Your task to perform on an android device: Open the Play Movies app and select the watchlist tab. Image 0: 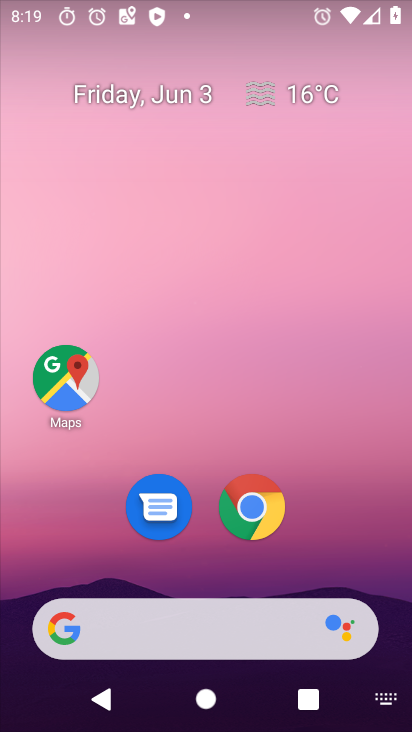
Step 0: drag from (284, 378) to (213, 20)
Your task to perform on an android device: Open the Play Movies app and select the watchlist tab. Image 1: 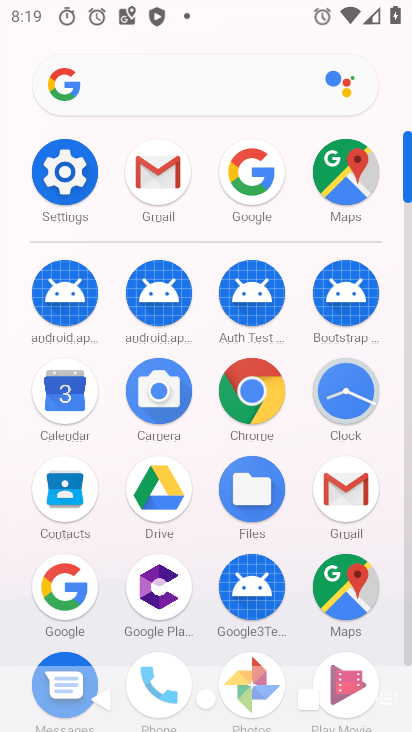
Step 1: click (267, 138)
Your task to perform on an android device: Open the Play Movies app and select the watchlist tab. Image 2: 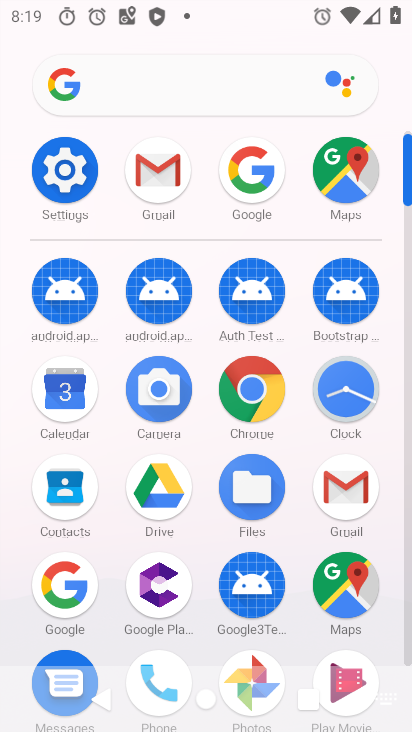
Step 2: drag from (306, 632) to (261, 202)
Your task to perform on an android device: Open the Play Movies app and select the watchlist tab. Image 3: 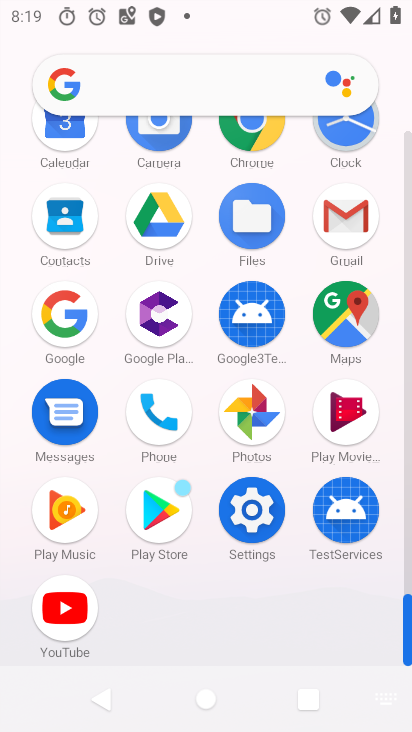
Step 3: click (338, 411)
Your task to perform on an android device: Open the Play Movies app and select the watchlist tab. Image 4: 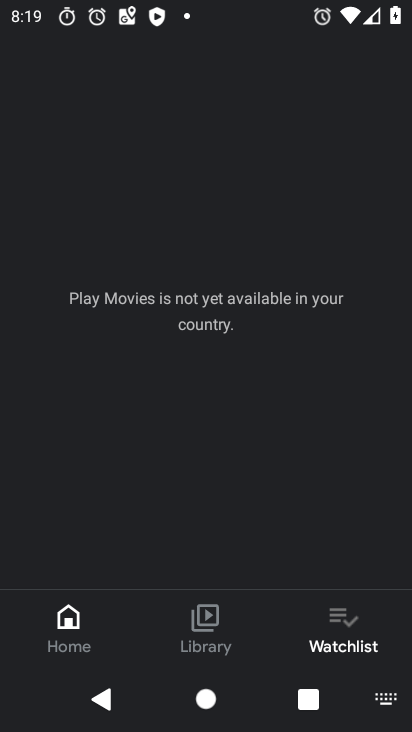
Step 4: task complete